Your task to perform on an android device: Open Google Maps Image 0: 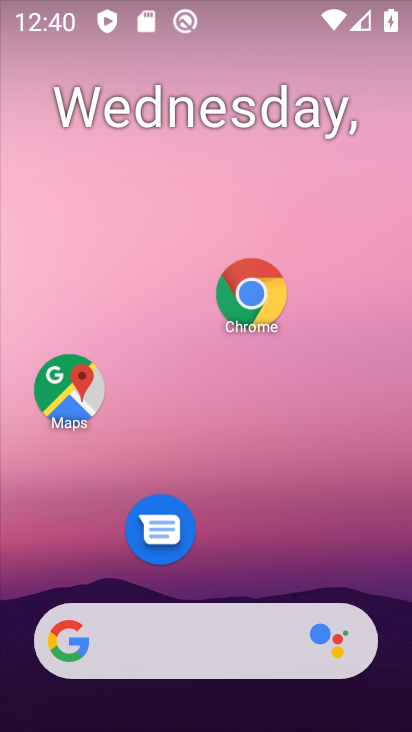
Step 0: drag from (299, 418) to (321, 300)
Your task to perform on an android device: Open Google Maps Image 1: 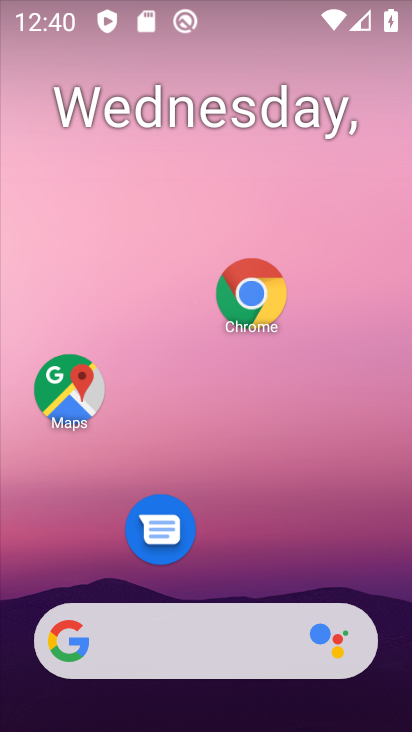
Step 1: click (100, 404)
Your task to perform on an android device: Open Google Maps Image 2: 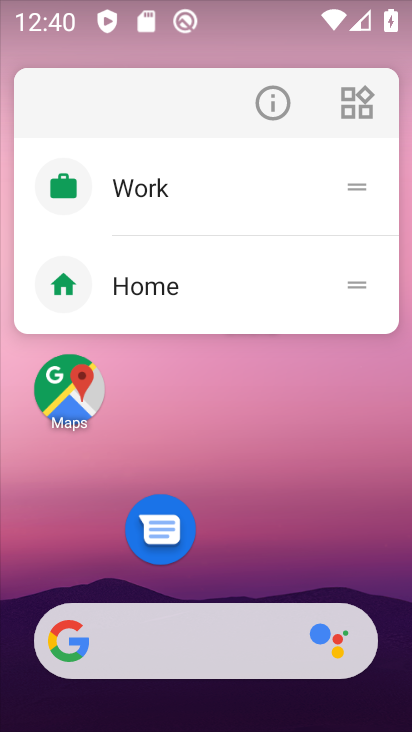
Step 2: click (91, 398)
Your task to perform on an android device: Open Google Maps Image 3: 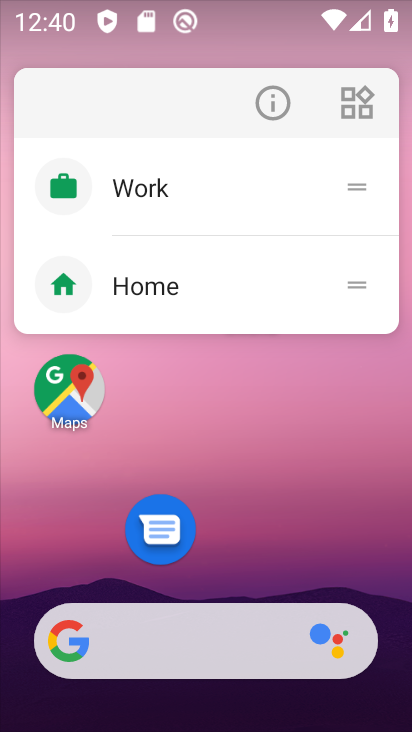
Step 3: click (56, 377)
Your task to perform on an android device: Open Google Maps Image 4: 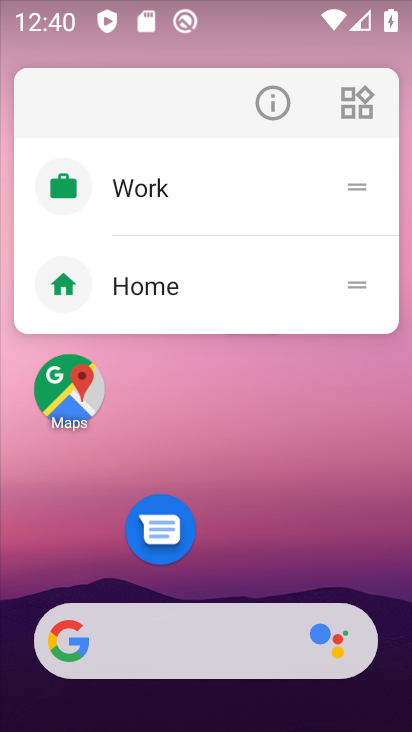
Step 4: click (55, 422)
Your task to perform on an android device: Open Google Maps Image 5: 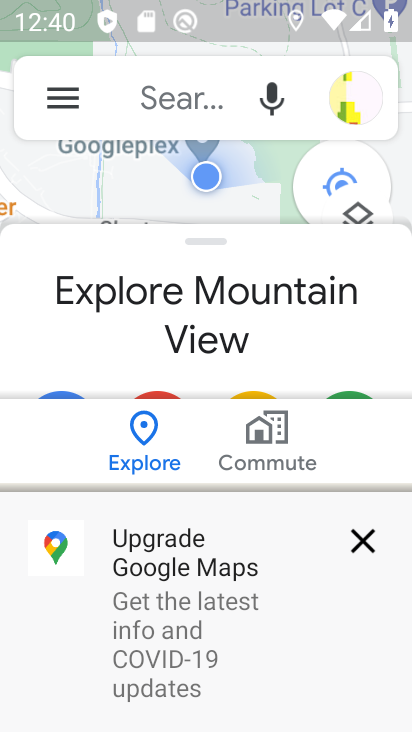
Step 5: task complete